Your task to perform on an android device: Is it going to rain today? Image 0: 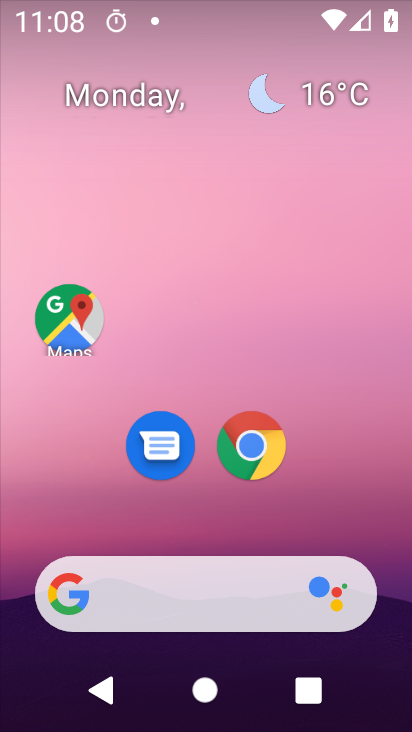
Step 0: drag from (210, 502) to (162, 11)
Your task to perform on an android device: Is it going to rain today? Image 1: 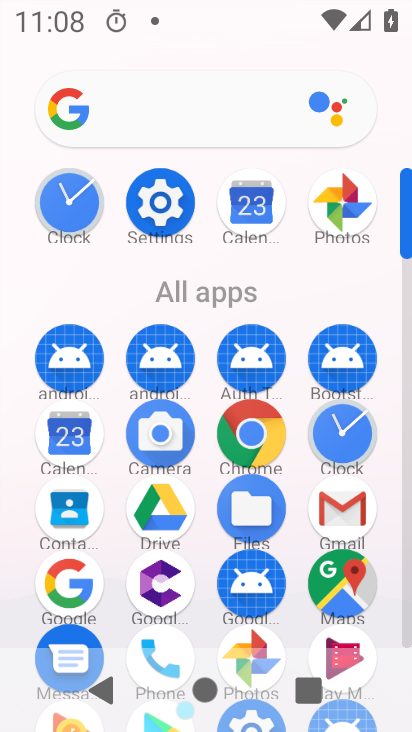
Step 1: click (232, 116)
Your task to perform on an android device: Is it going to rain today? Image 2: 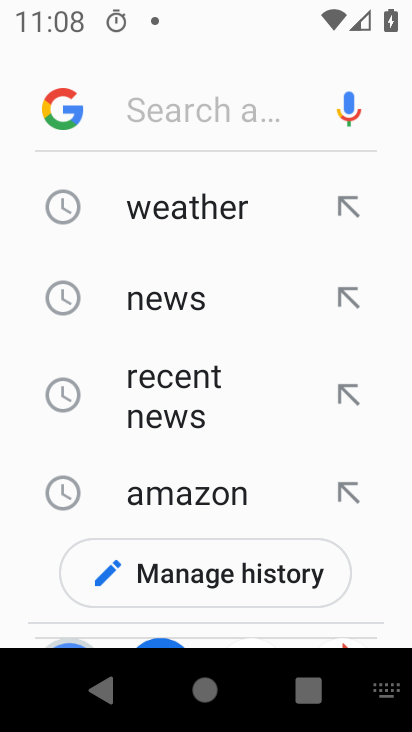
Step 2: click (163, 223)
Your task to perform on an android device: Is it going to rain today? Image 3: 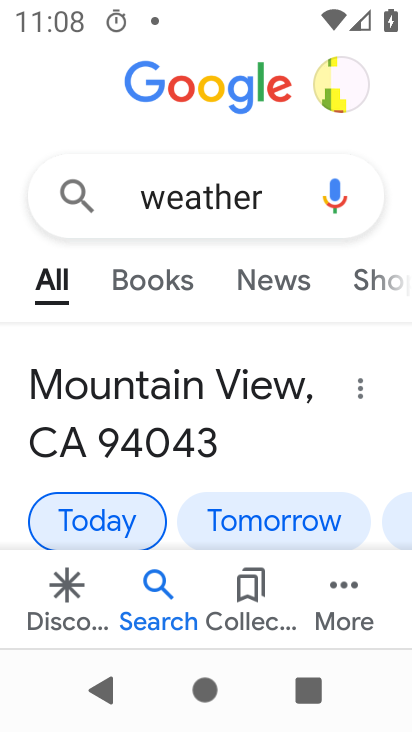
Step 3: drag from (234, 563) to (238, 223)
Your task to perform on an android device: Is it going to rain today? Image 4: 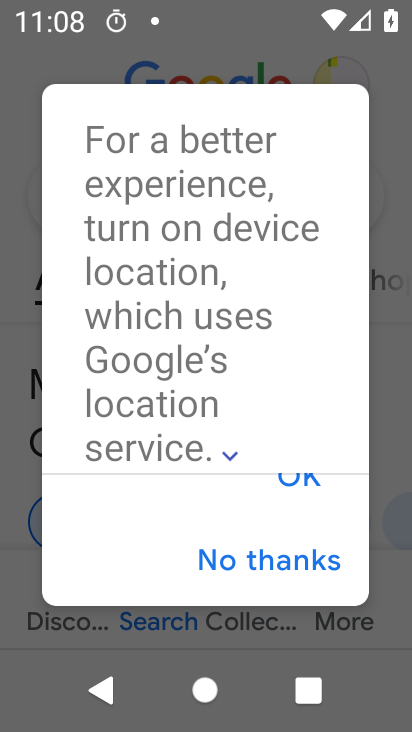
Step 4: click (298, 470)
Your task to perform on an android device: Is it going to rain today? Image 5: 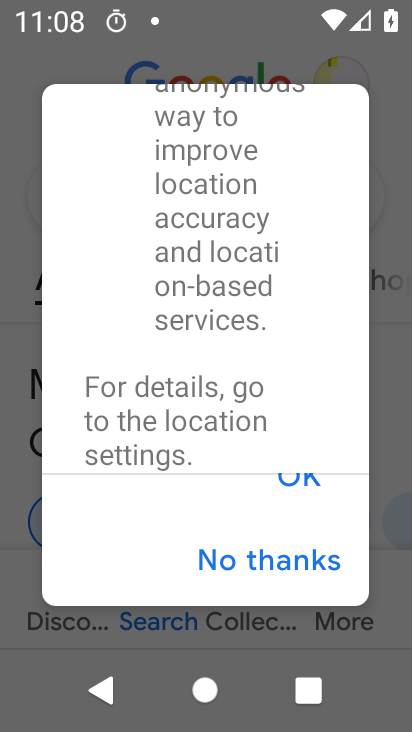
Step 5: click (297, 483)
Your task to perform on an android device: Is it going to rain today? Image 6: 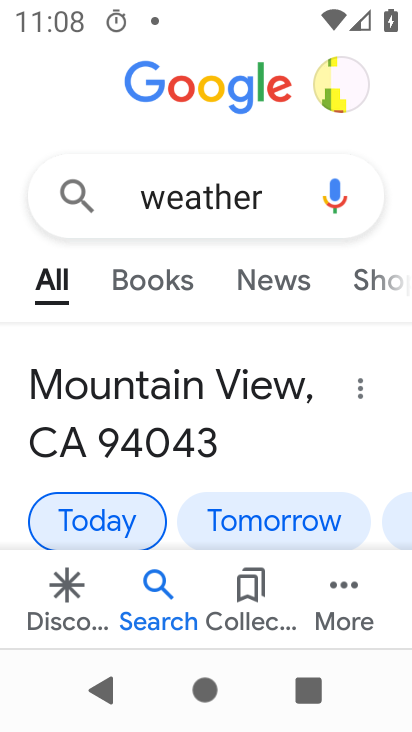
Step 6: task complete